Your task to perform on an android device: Set the phone to "Do not disturb". Image 0: 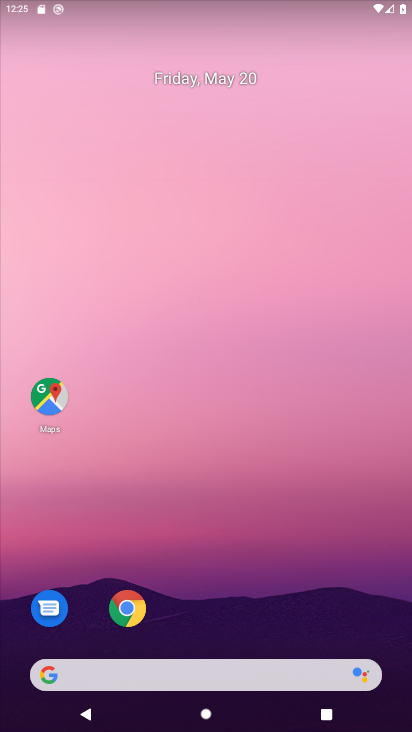
Step 0: press home button
Your task to perform on an android device: Set the phone to "Do not disturb". Image 1: 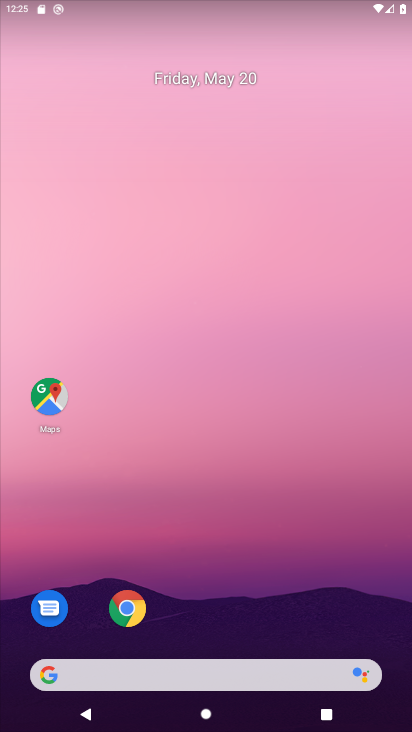
Step 1: drag from (242, 5) to (246, 685)
Your task to perform on an android device: Set the phone to "Do not disturb". Image 2: 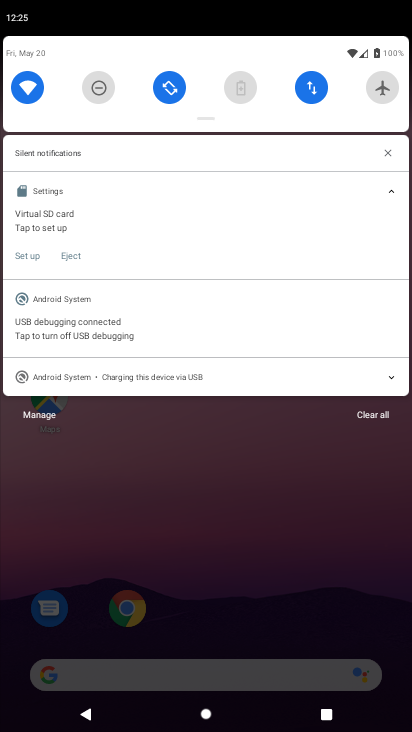
Step 2: click (93, 89)
Your task to perform on an android device: Set the phone to "Do not disturb". Image 3: 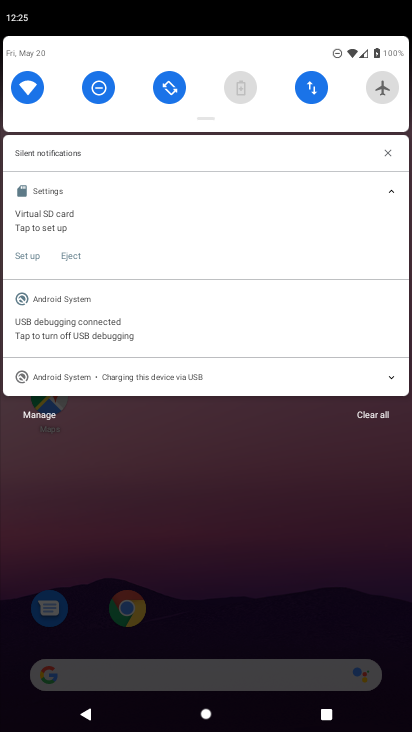
Step 3: task complete